Your task to perform on an android device: turn off picture-in-picture Image 0: 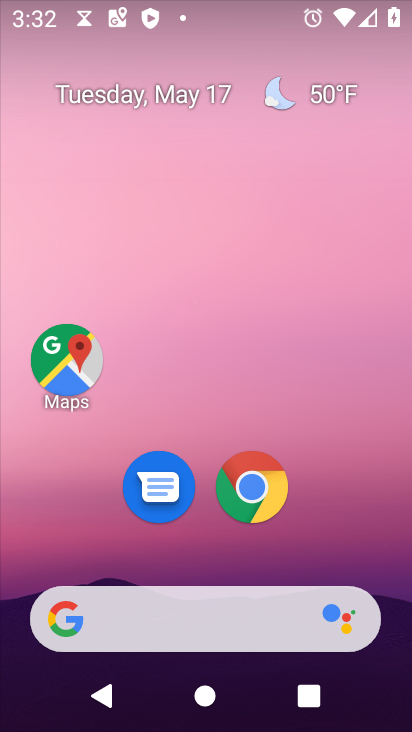
Step 0: drag from (393, 603) to (323, 184)
Your task to perform on an android device: turn off picture-in-picture Image 1: 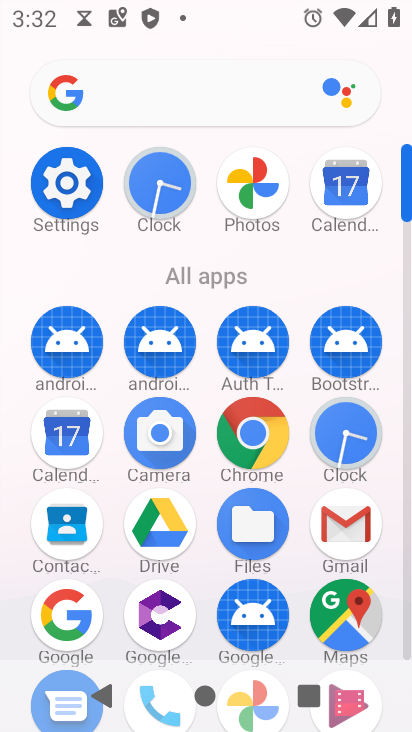
Step 1: click (408, 648)
Your task to perform on an android device: turn off picture-in-picture Image 2: 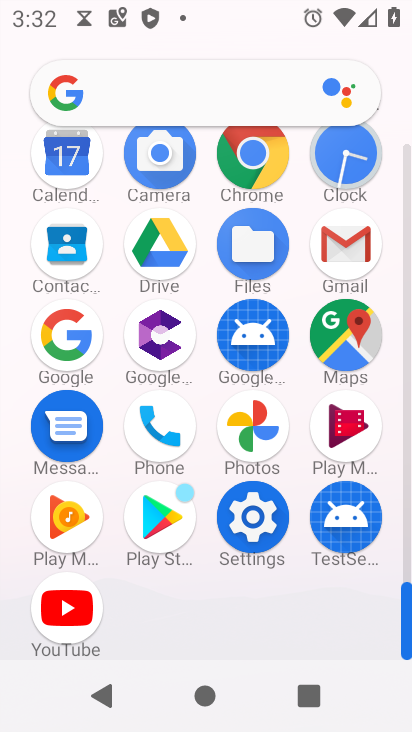
Step 2: click (247, 513)
Your task to perform on an android device: turn off picture-in-picture Image 3: 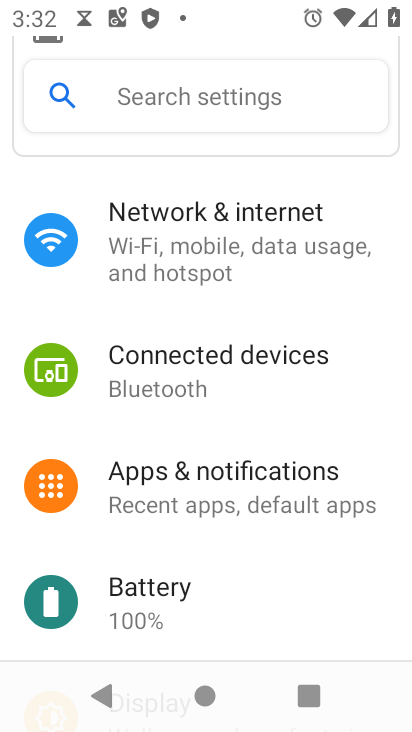
Step 3: click (227, 473)
Your task to perform on an android device: turn off picture-in-picture Image 4: 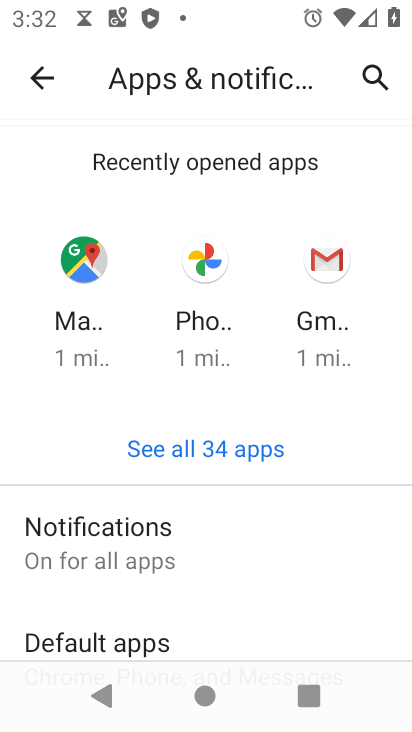
Step 4: drag from (202, 604) to (241, 341)
Your task to perform on an android device: turn off picture-in-picture Image 5: 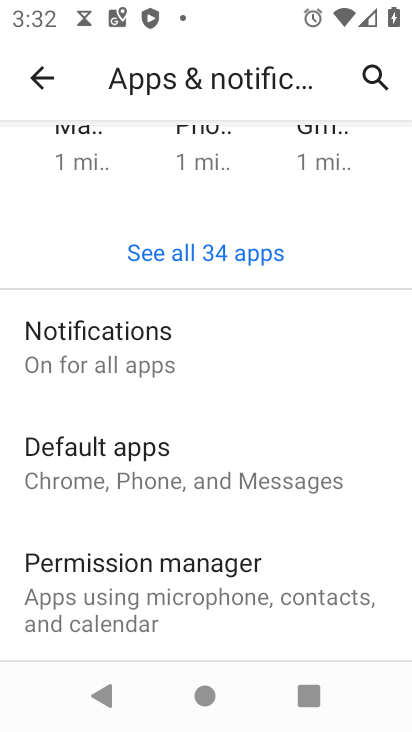
Step 5: drag from (163, 622) to (160, 232)
Your task to perform on an android device: turn off picture-in-picture Image 6: 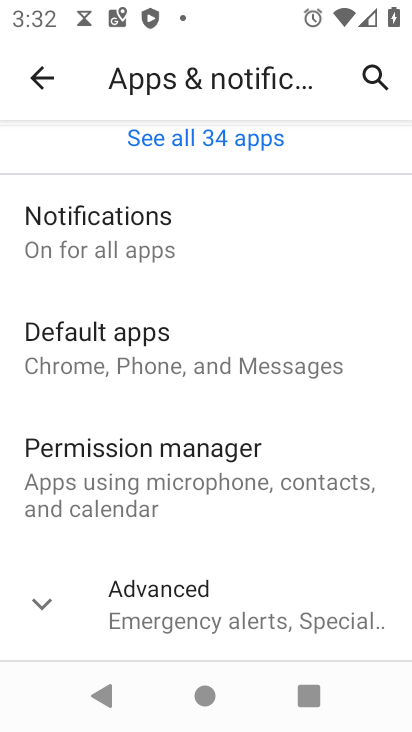
Step 6: click (46, 602)
Your task to perform on an android device: turn off picture-in-picture Image 7: 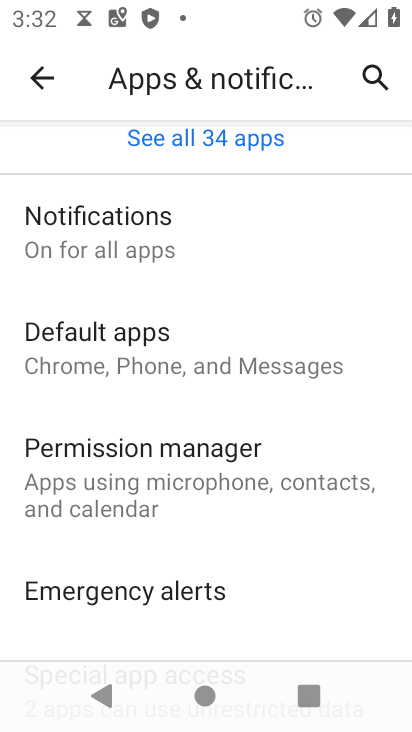
Step 7: drag from (161, 590) to (178, 216)
Your task to perform on an android device: turn off picture-in-picture Image 8: 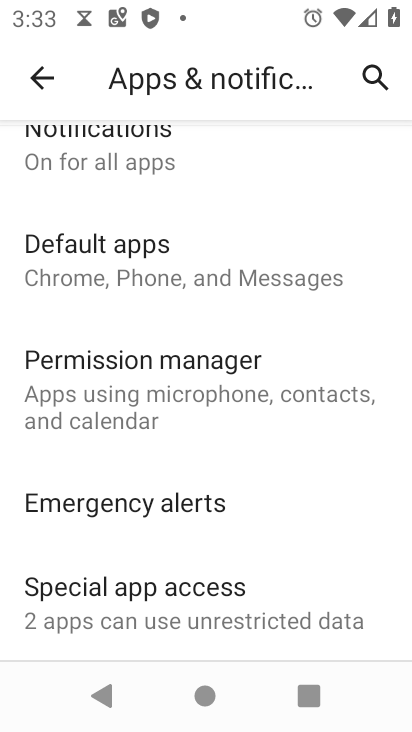
Step 8: drag from (255, 546) to (245, 224)
Your task to perform on an android device: turn off picture-in-picture Image 9: 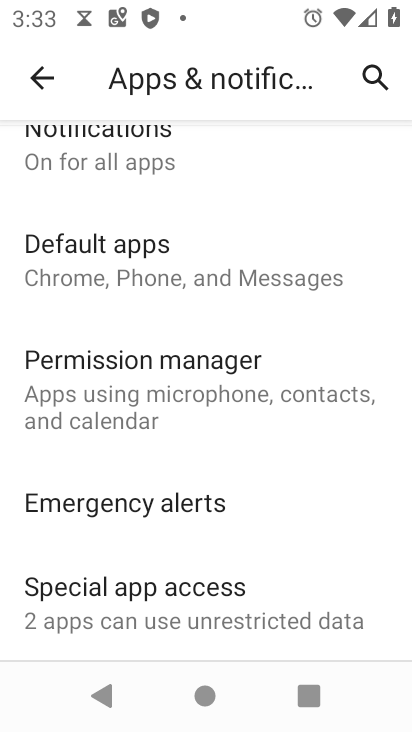
Step 9: click (131, 616)
Your task to perform on an android device: turn off picture-in-picture Image 10: 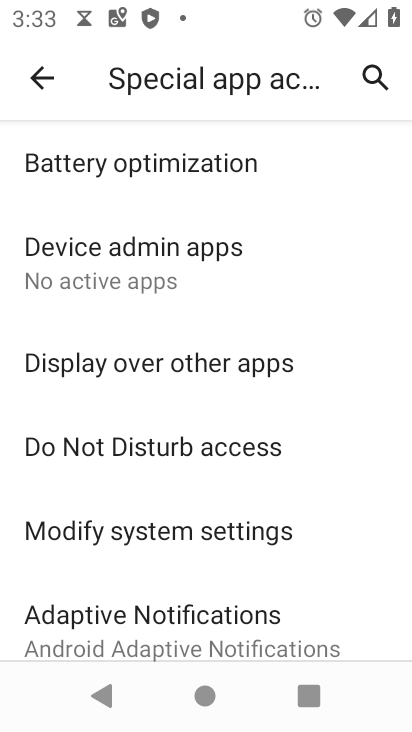
Step 10: drag from (233, 583) to (234, 238)
Your task to perform on an android device: turn off picture-in-picture Image 11: 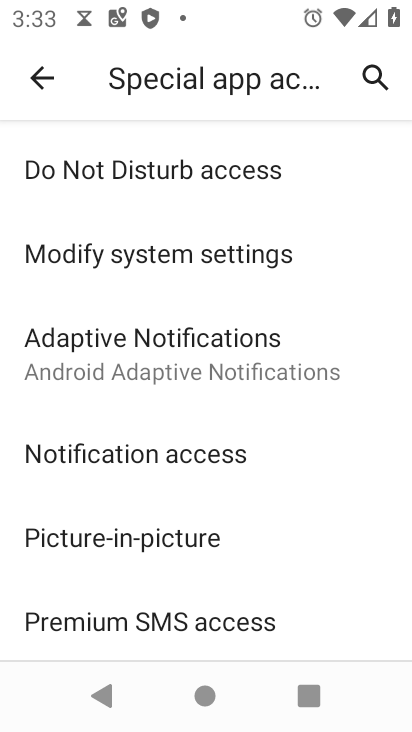
Step 11: click (156, 523)
Your task to perform on an android device: turn off picture-in-picture Image 12: 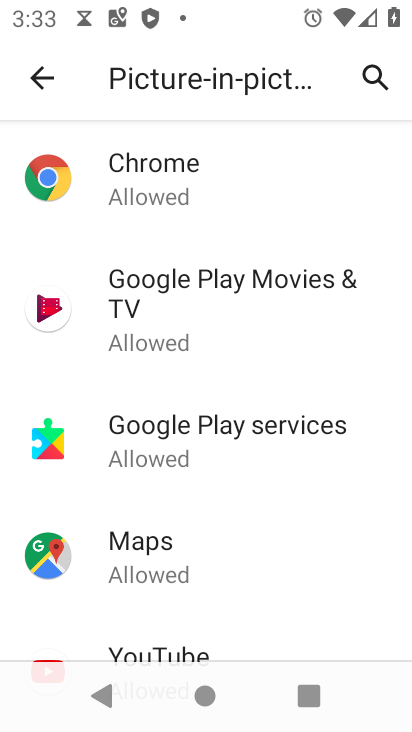
Step 12: drag from (283, 615) to (268, 107)
Your task to perform on an android device: turn off picture-in-picture Image 13: 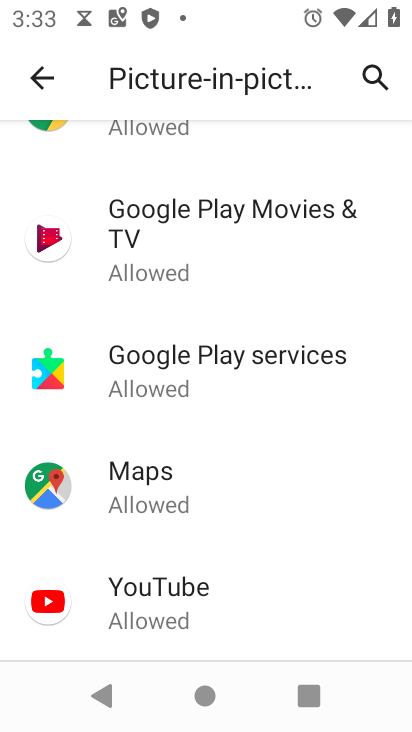
Step 13: click (158, 480)
Your task to perform on an android device: turn off picture-in-picture Image 14: 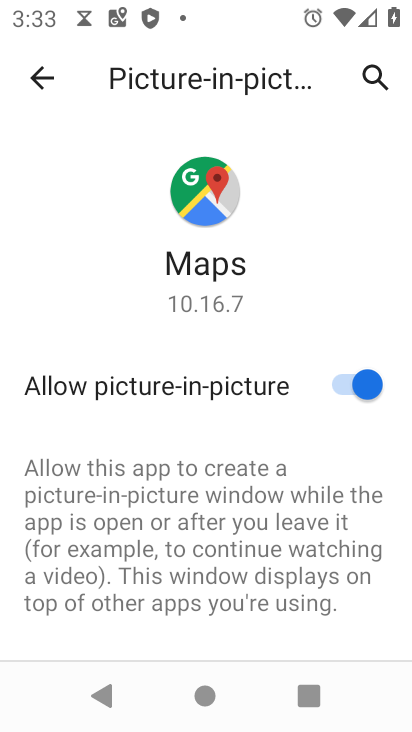
Step 14: click (340, 382)
Your task to perform on an android device: turn off picture-in-picture Image 15: 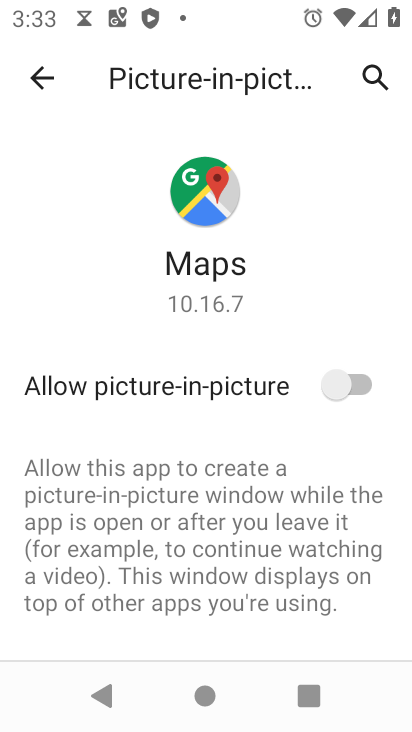
Step 15: task complete